Your task to perform on an android device: install app "Google Docs" Image 0: 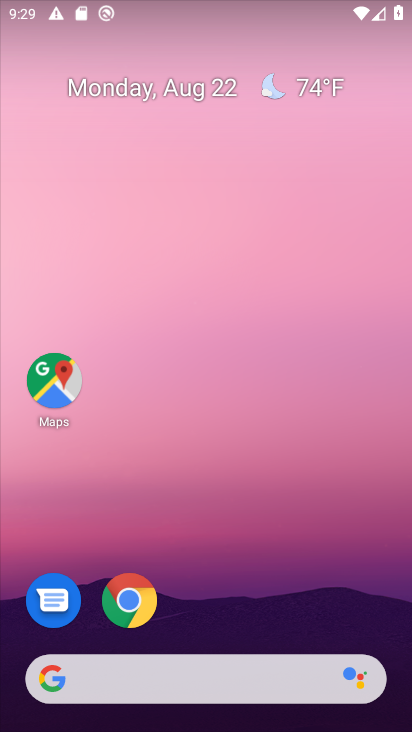
Step 0: drag from (209, 582) to (177, 195)
Your task to perform on an android device: install app "Google Docs" Image 1: 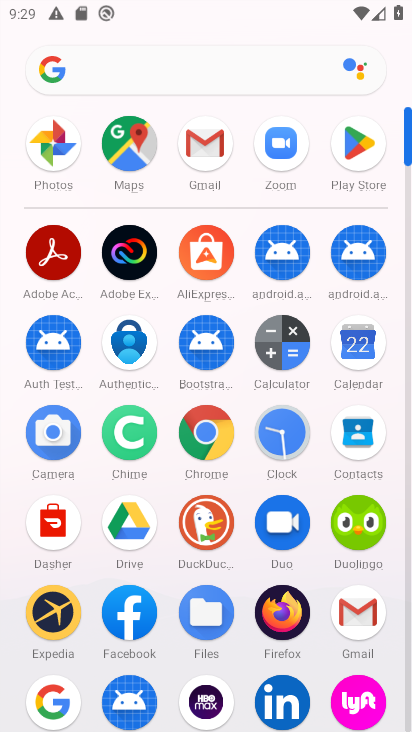
Step 1: click (349, 137)
Your task to perform on an android device: install app "Google Docs" Image 2: 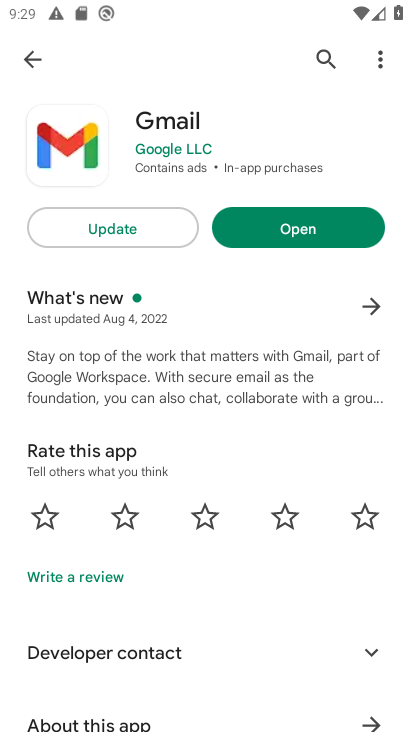
Step 2: press home button
Your task to perform on an android device: install app "Google Docs" Image 3: 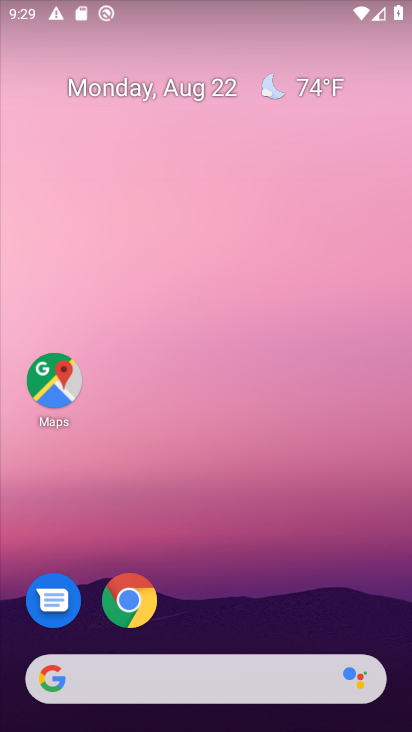
Step 3: drag from (209, 443) to (265, 148)
Your task to perform on an android device: install app "Google Docs" Image 4: 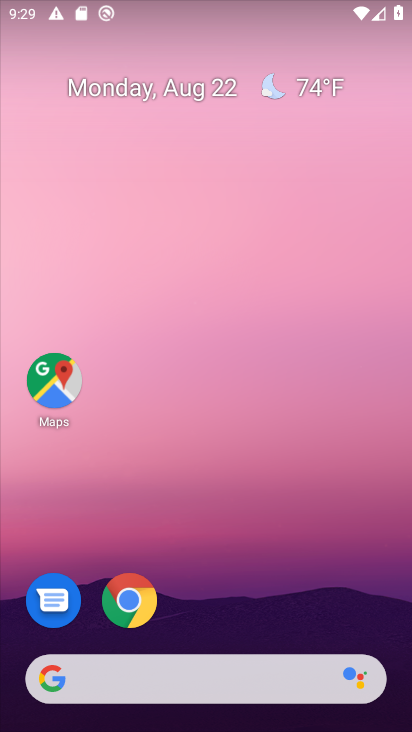
Step 4: drag from (211, 609) to (195, 166)
Your task to perform on an android device: install app "Google Docs" Image 5: 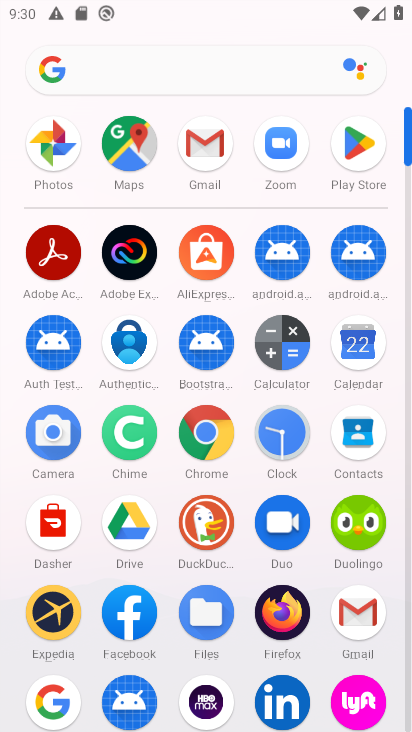
Step 5: click (359, 146)
Your task to perform on an android device: install app "Google Docs" Image 6: 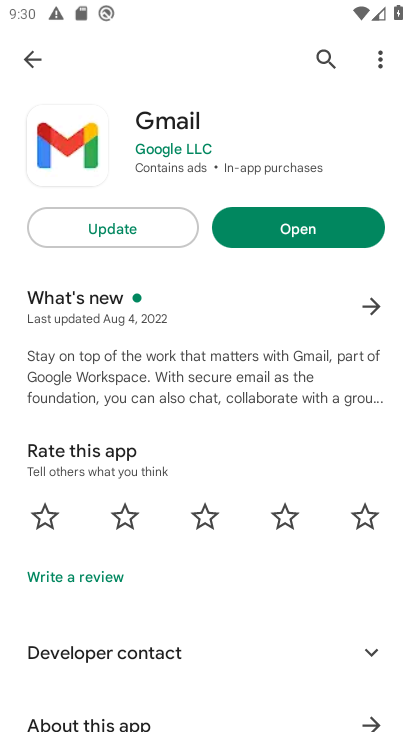
Step 6: click (322, 66)
Your task to perform on an android device: install app "Google Docs" Image 7: 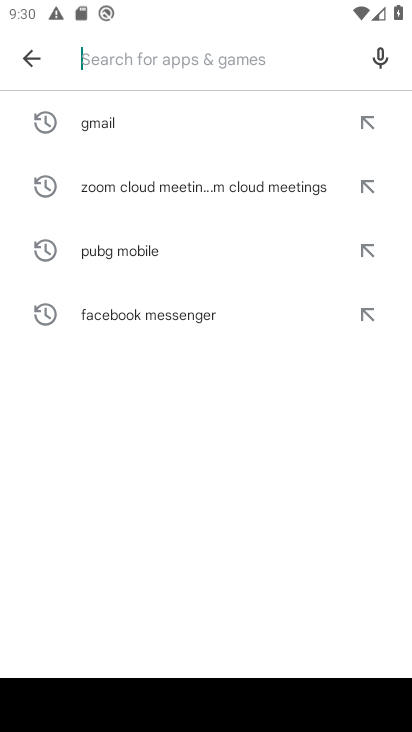
Step 7: type "Google Docs"
Your task to perform on an android device: install app "Google Docs" Image 8: 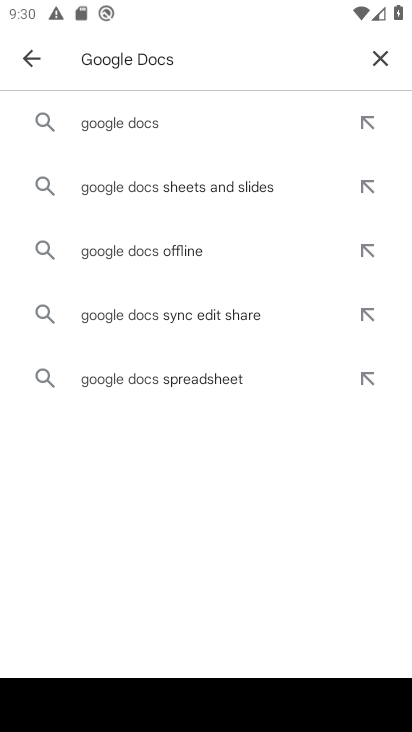
Step 8: click (132, 112)
Your task to perform on an android device: install app "Google Docs" Image 9: 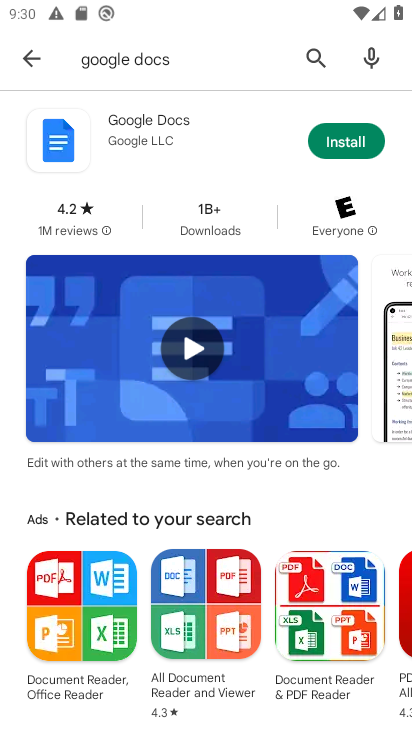
Step 9: click (363, 138)
Your task to perform on an android device: install app "Google Docs" Image 10: 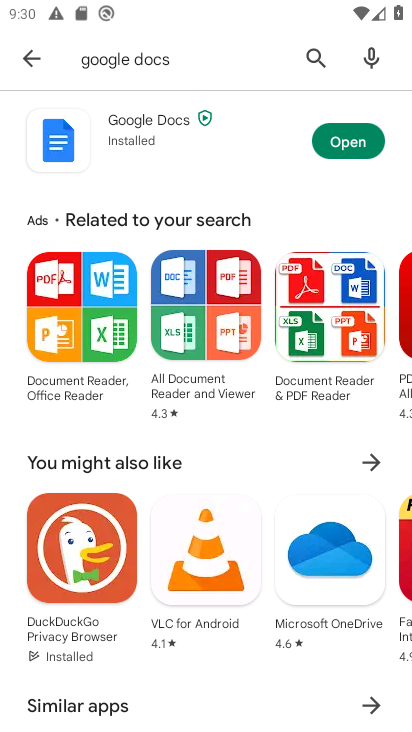
Step 10: task complete